Your task to perform on an android device: Open calendar and show me the second week of next month Image 0: 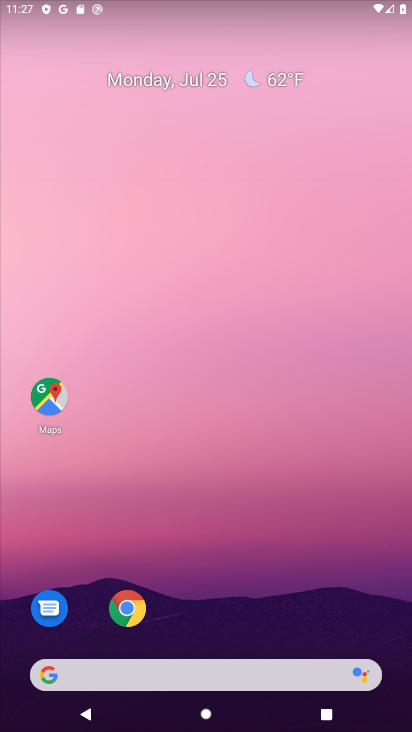
Step 0: drag from (275, 537) to (287, 168)
Your task to perform on an android device: Open calendar and show me the second week of next month Image 1: 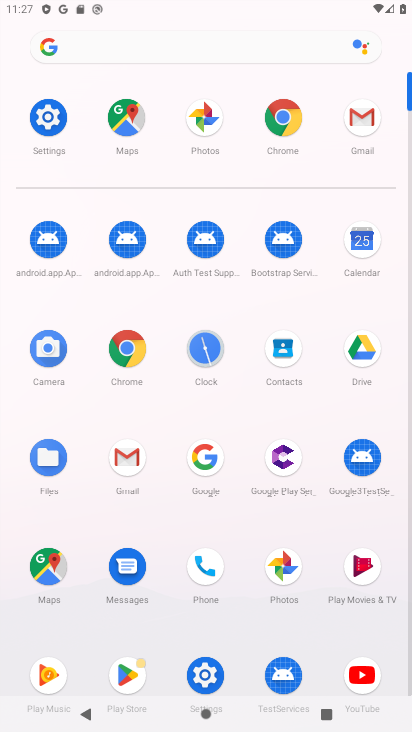
Step 1: click (358, 245)
Your task to perform on an android device: Open calendar and show me the second week of next month Image 2: 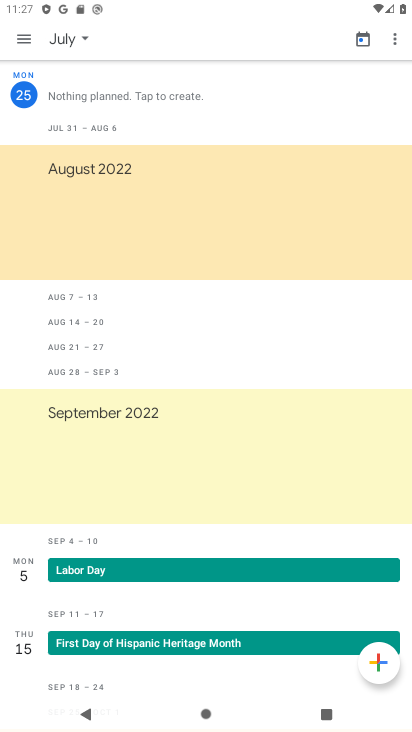
Step 2: task complete